Your task to perform on an android device: turn on wifi Image 0: 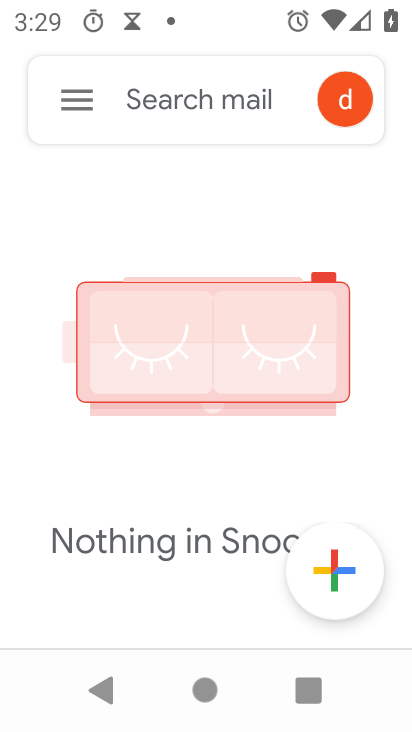
Step 0: press home button
Your task to perform on an android device: turn on wifi Image 1: 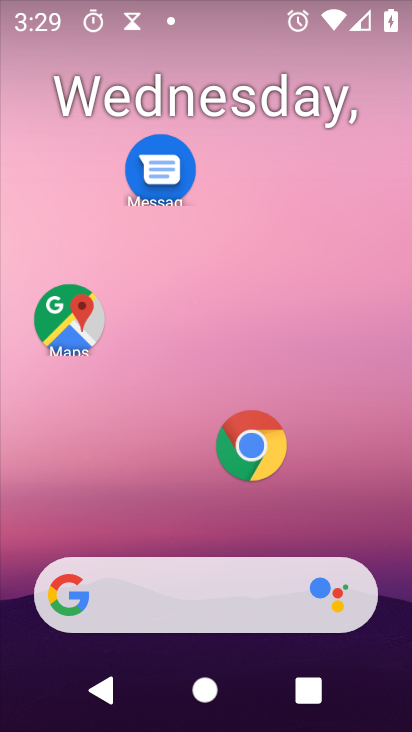
Step 1: task complete